Your task to perform on an android device: Go to CNN.com Image 0: 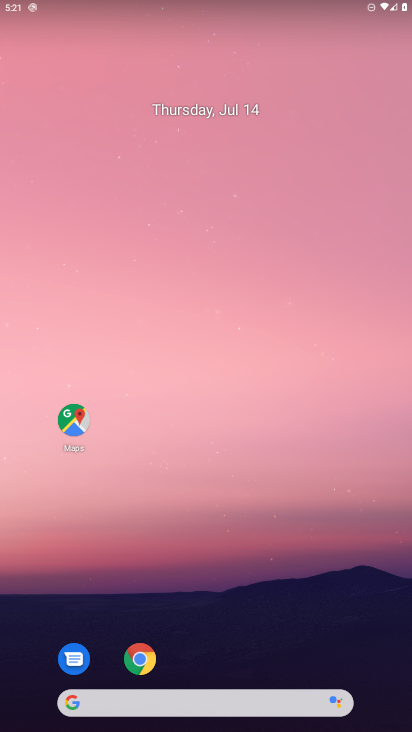
Step 0: click (136, 657)
Your task to perform on an android device: Go to CNN.com Image 1: 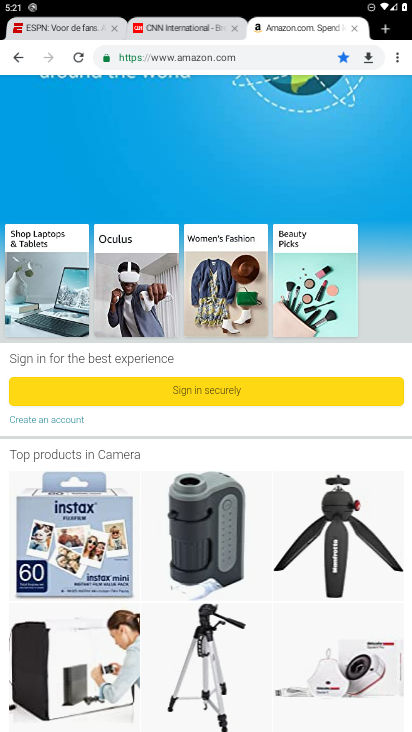
Step 1: click (353, 23)
Your task to perform on an android device: Go to CNN.com Image 2: 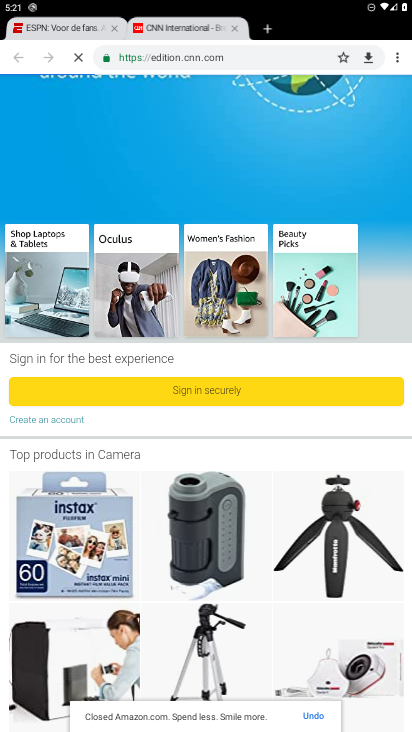
Step 2: click (235, 25)
Your task to perform on an android device: Go to CNN.com Image 3: 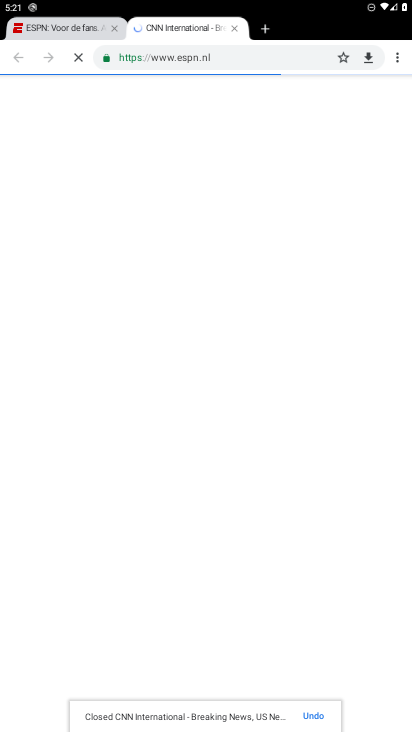
Step 3: click (230, 26)
Your task to perform on an android device: Go to CNN.com Image 4: 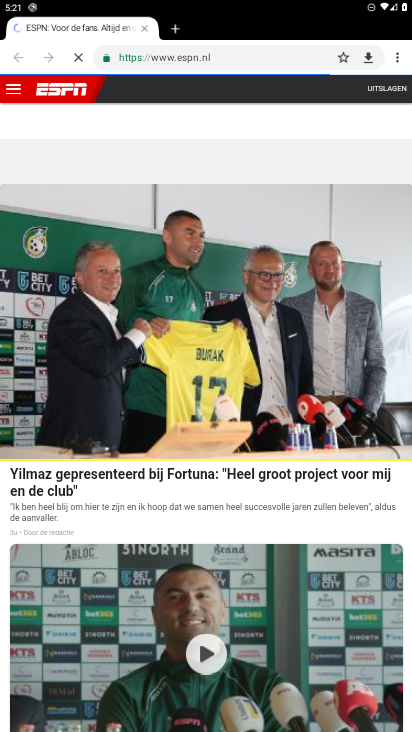
Step 4: click (179, 24)
Your task to perform on an android device: Go to CNN.com Image 5: 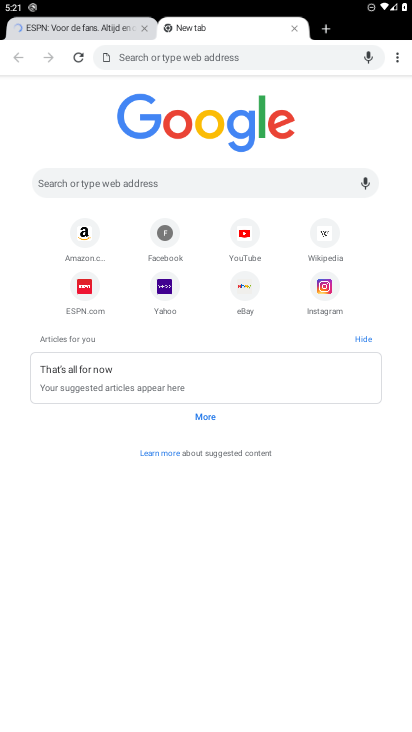
Step 5: click (158, 174)
Your task to perform on an android device: Go to CNN.com Image 6: 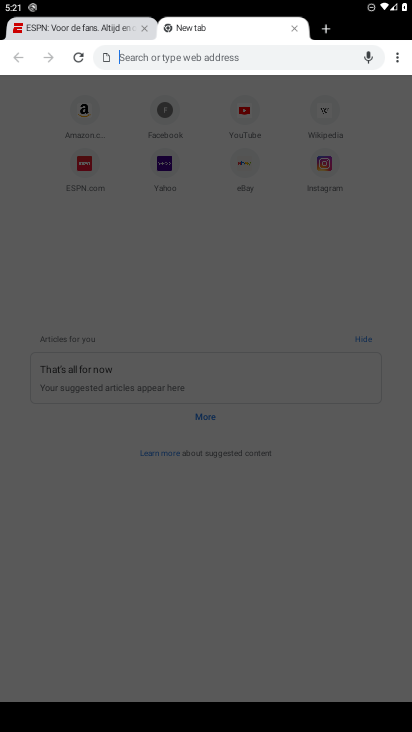
Step 6: type "cnn.com"
Your task to perform on an android device: Go to CNN.com Image 7: 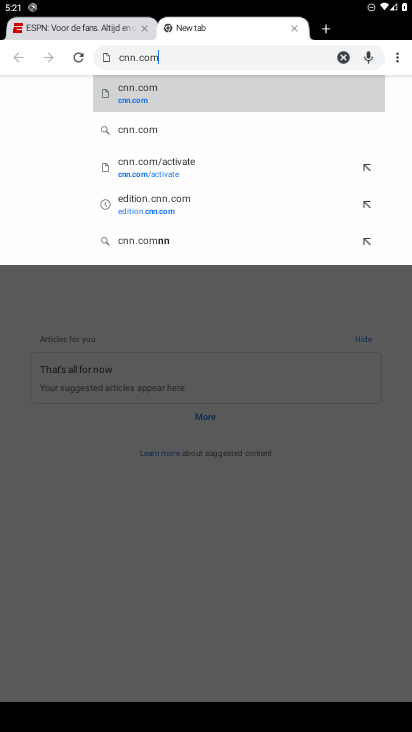
Step 7: click (161, 91)
Your task to perform on an android device: Go to CNN.com Image 8: 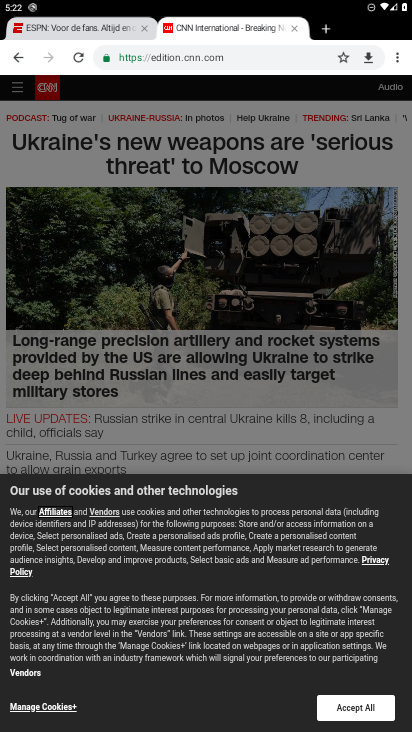
Step 8: click (360, 708)
Your task to perform on an android device: Go to CNN.com Image 9: 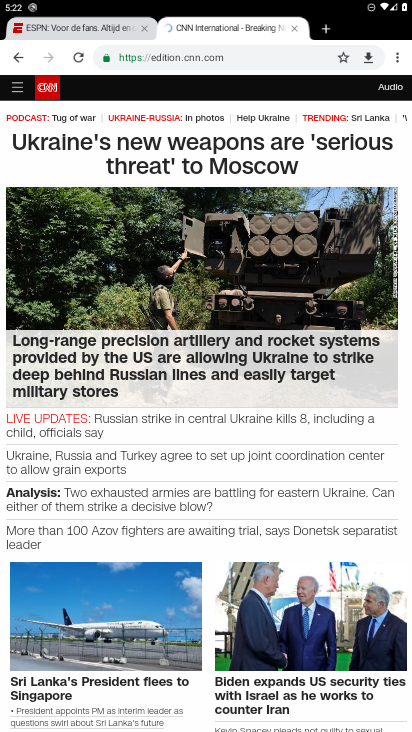
Step 9: task complete